Your task to perform on an android device: Do I have any events this weekend? Image 0: 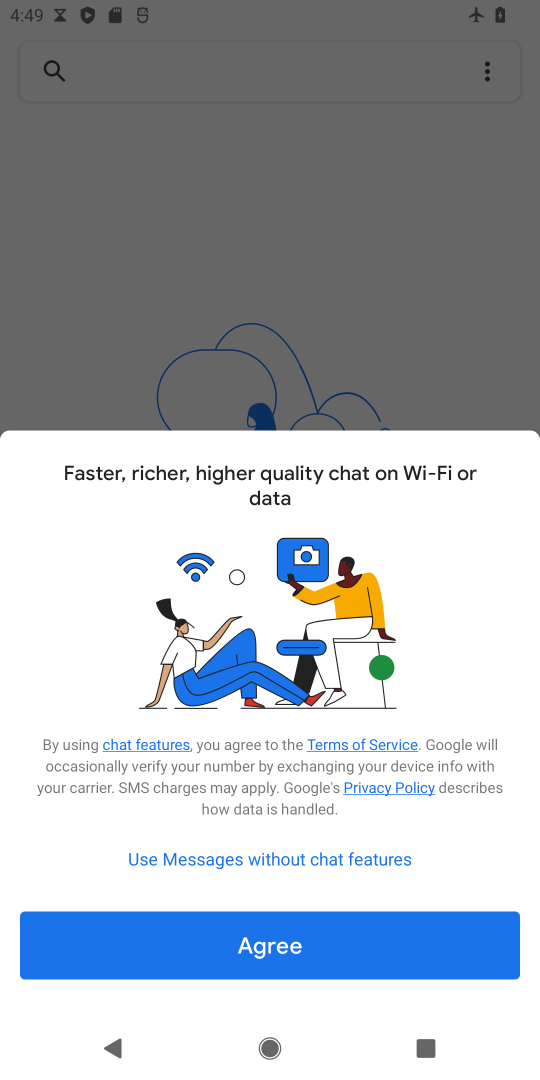
Step 0: press back button
Your task to perform on an android device: Do I have any events this weekend? Image 1: 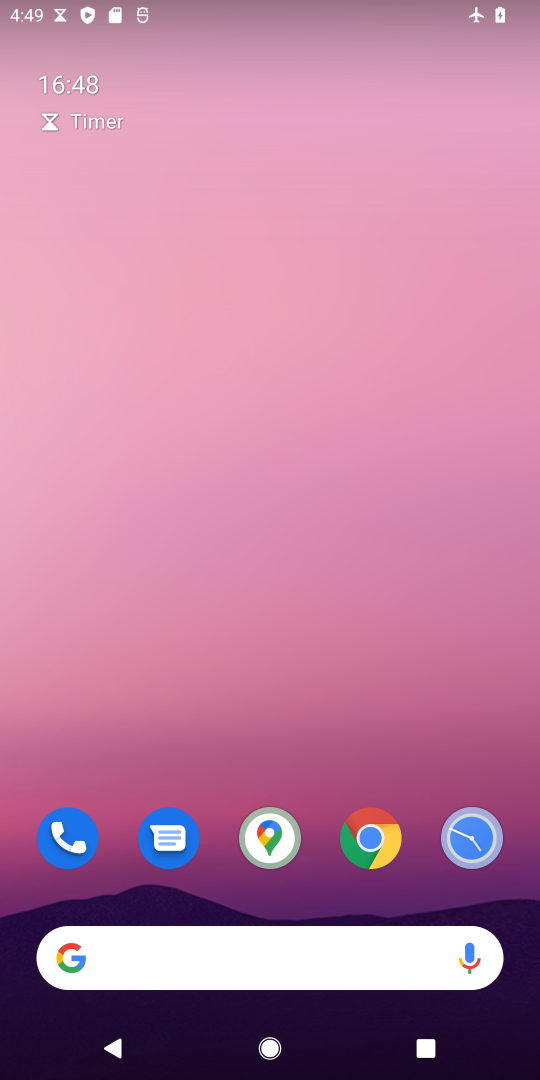
Step 1: drag from (427, 787) to (338, 93)
Your task to perform on an android device: Do I have any events this weekend? Image 2: 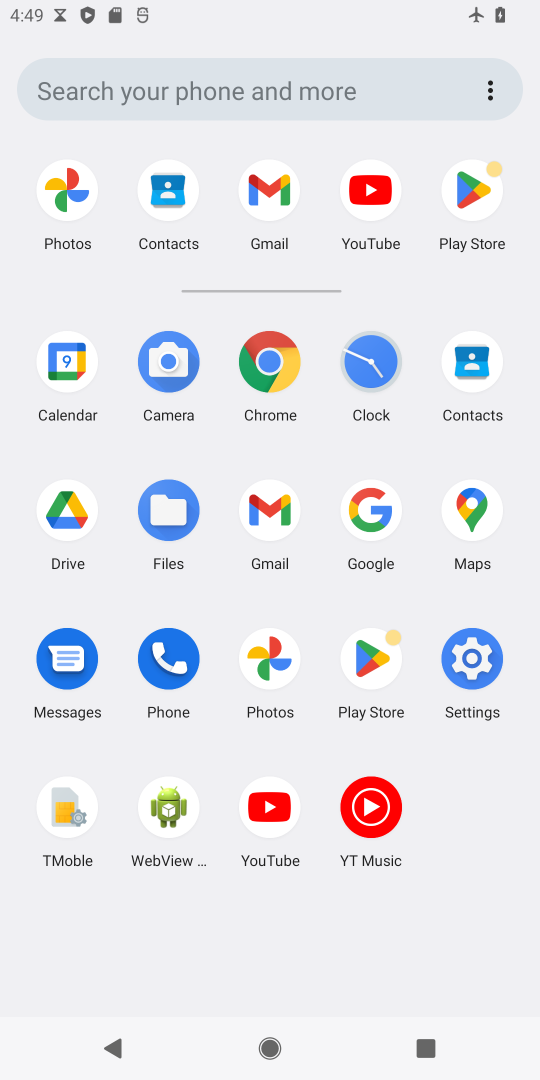
Step 2: click (66, 362)
Your task to perform on an android device: Do I have any events this weekend? Image 3: 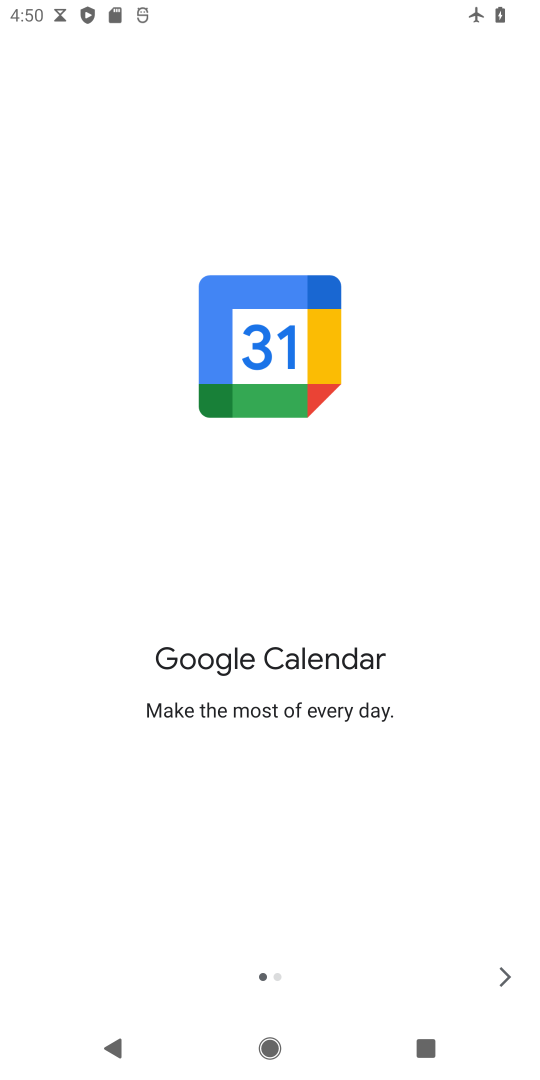
Step 3: click (506, 987)
Your task to perform on an android device: Do I have any events this weekend? Image 4: 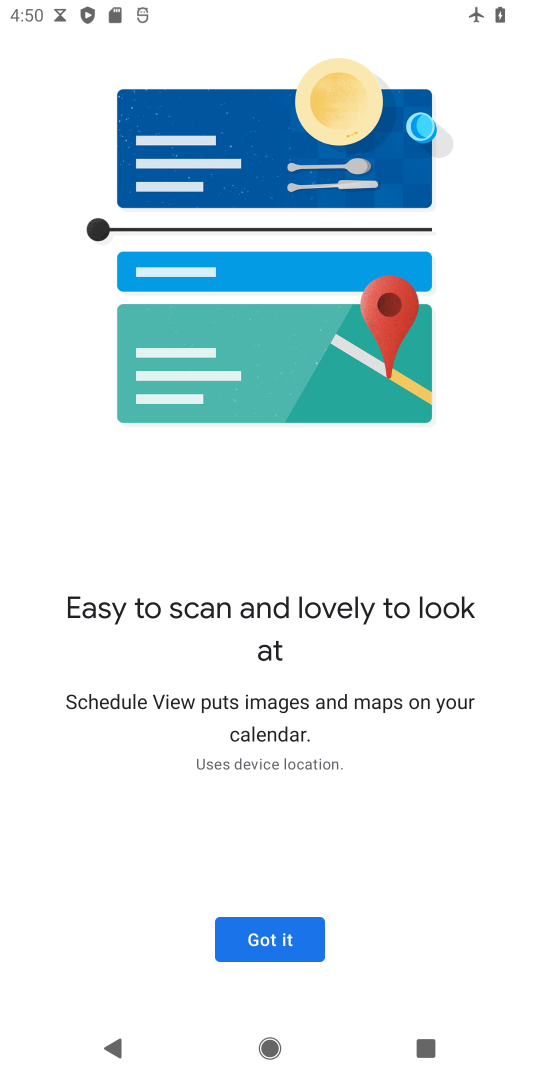
Step 4: click (306, 957)
Your task to perform on an android device: Do I have any events this weekend? Image 5: 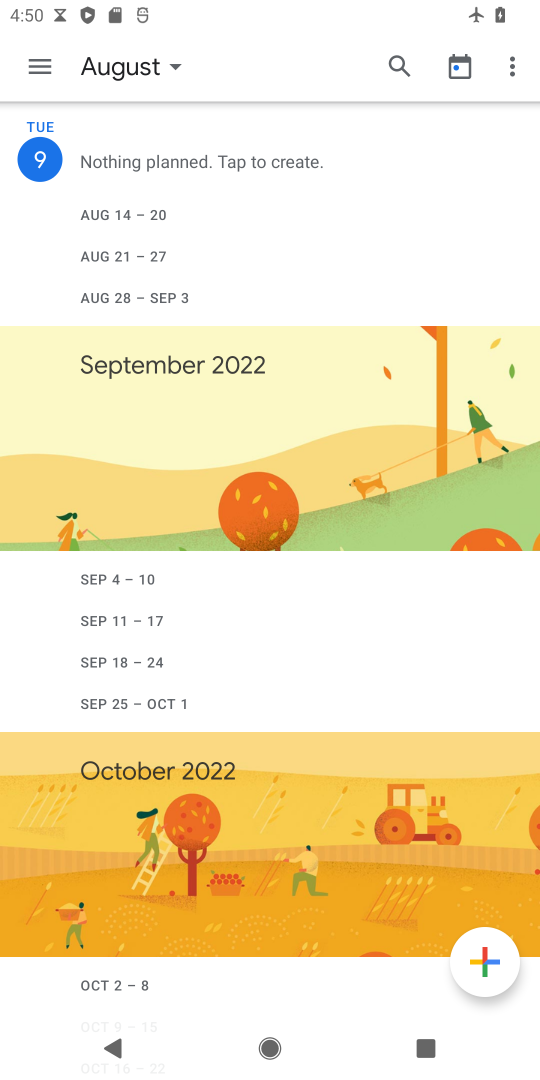
Step 5: click (18, 65)
Your task to perform on an android device: Do I have any events this weekend? Image 6: 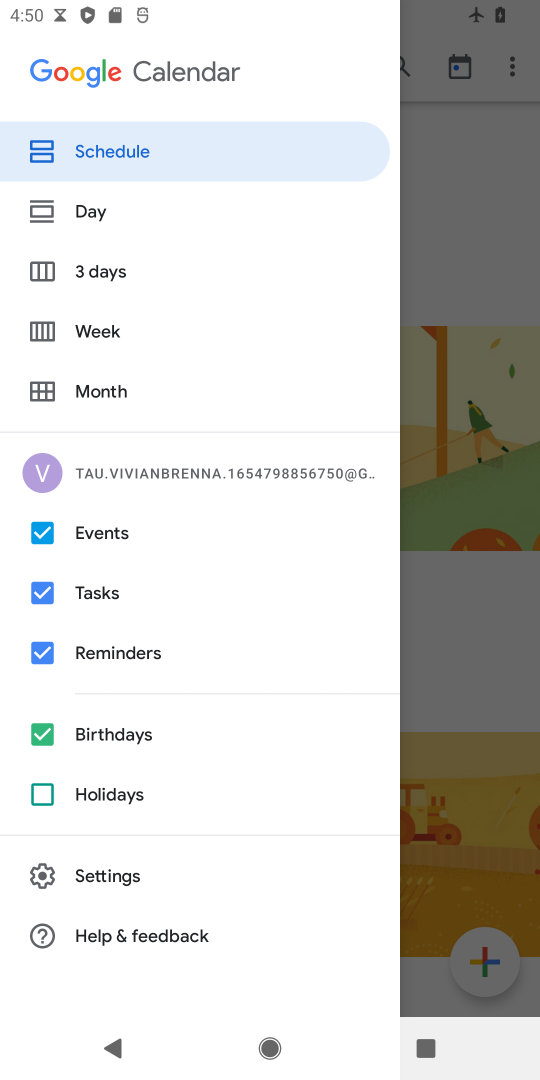
Step 6: click (41, 656)
Your task to perform on an android device: Do I have any events this weekend? Image 7: 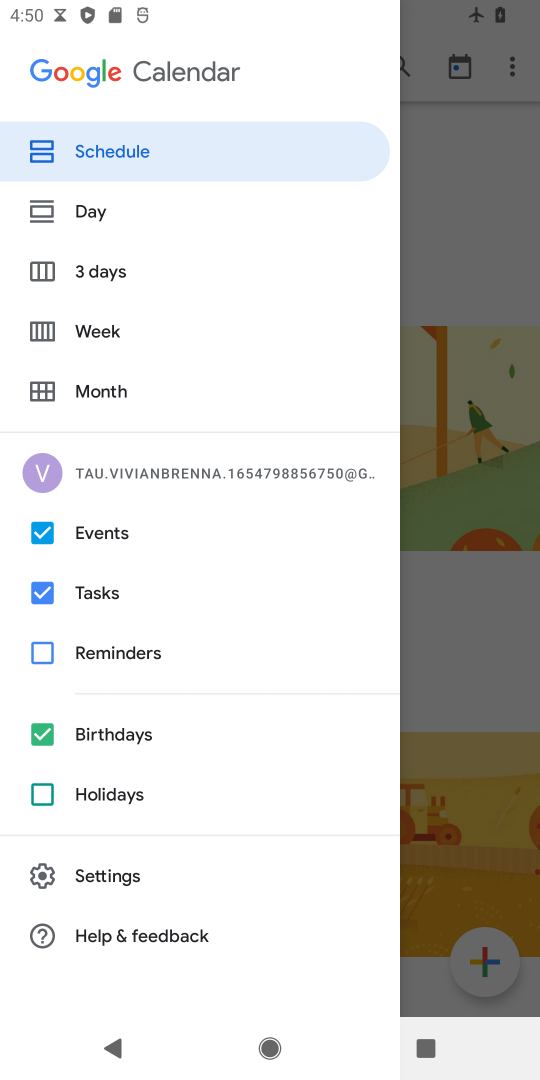
Step 7: click (46, 735)
Your task to perform on an android device: Do I have any events this weekend? Image 8: 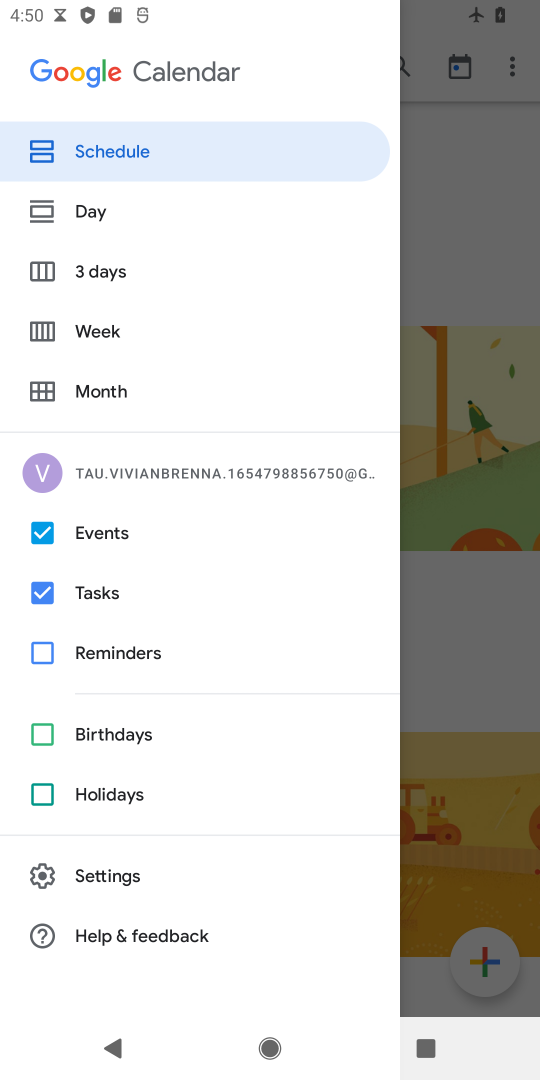
Step 8: click (31, 589)
Your task to perform on an android device: Do I have any events this weekend? Image 9: 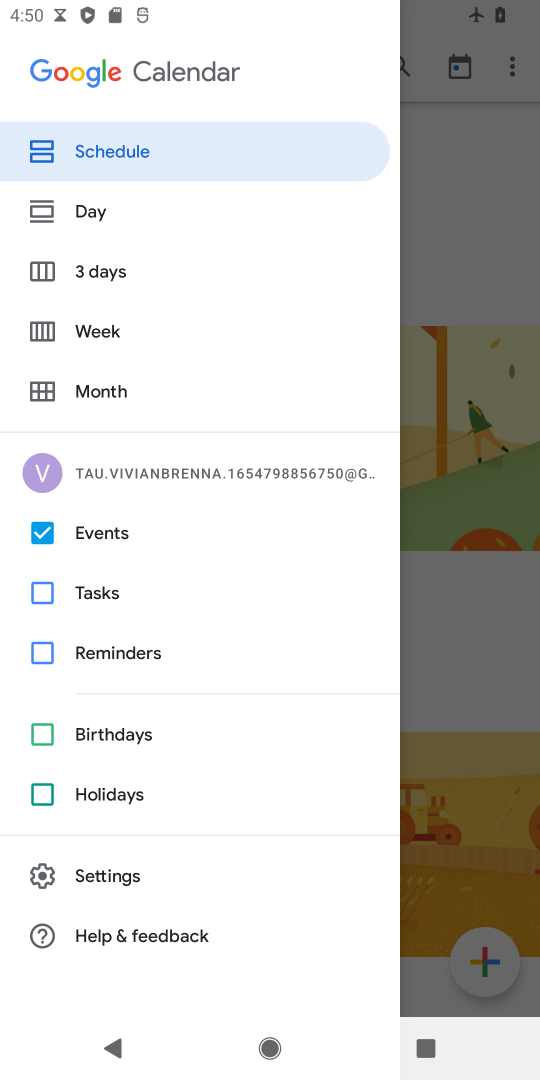
Step 9: click (92, 338)
Your task to perform on an android device: Do I have any events this weekend? Image 10: 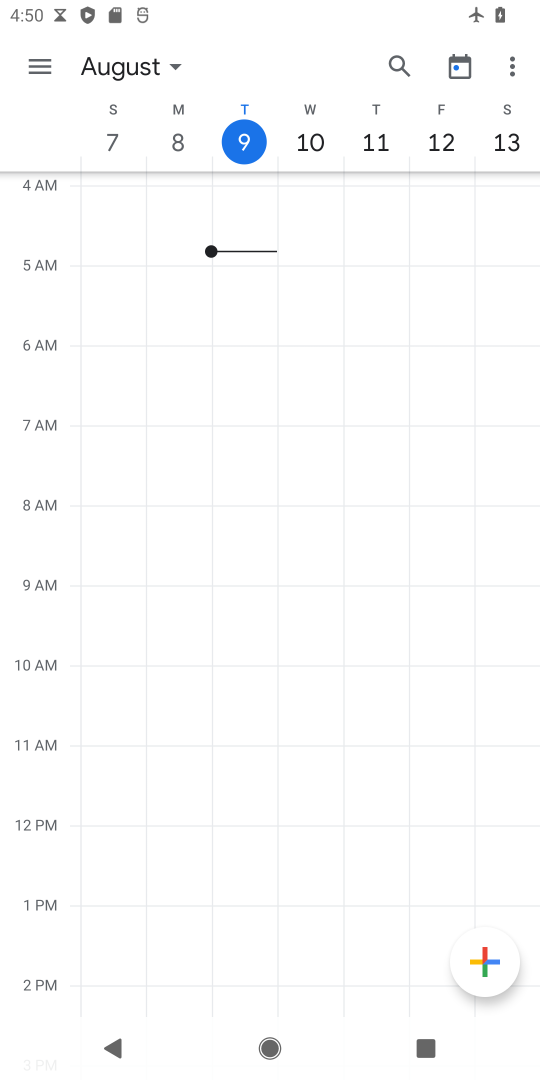
Step 10: click (37, 72)
Your task to perform on an android device: Do I have any events this weekend? Image 11: 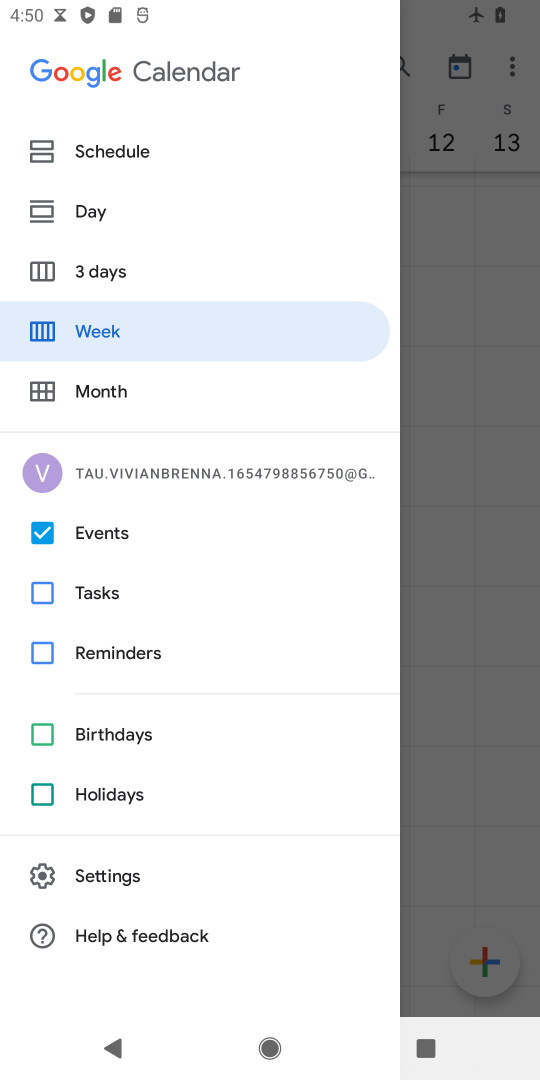
Step 11: click (91, 269)
Your task to perform on an android device: Do I have any events this weekend? Image 12: 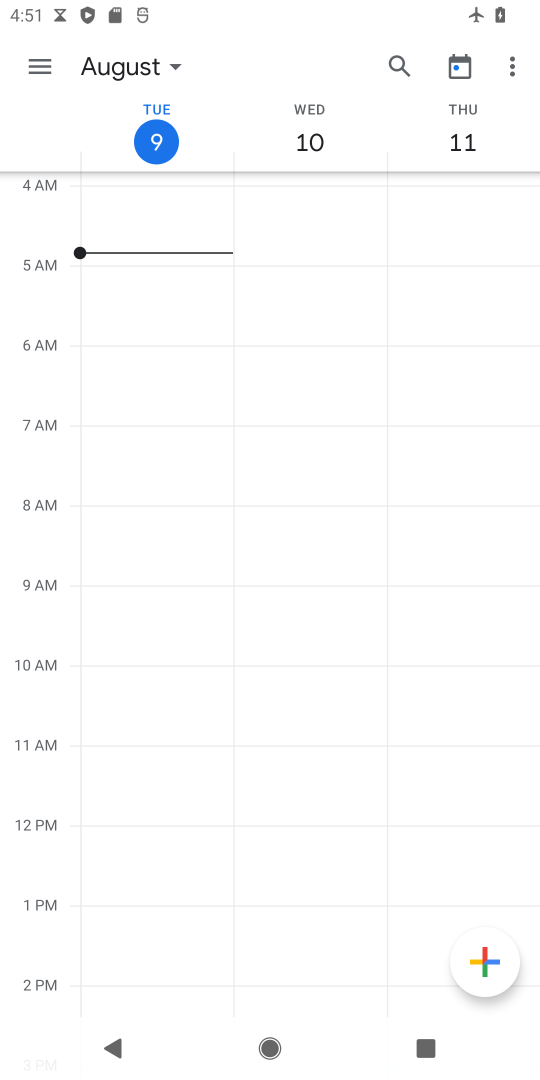
Step 12: task complete